Your task to perform on an android device: see tabs open on other devices in the chrome app Image 0: 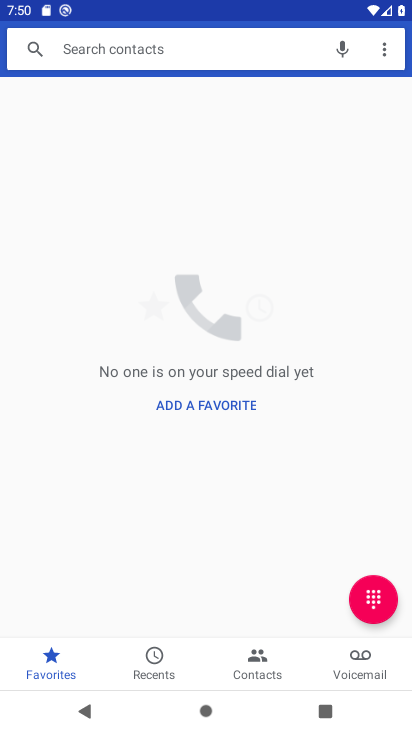
Step 0: press home button
Your task to perform on an android device: see tabs open on other devices in the chrome app Image 1: 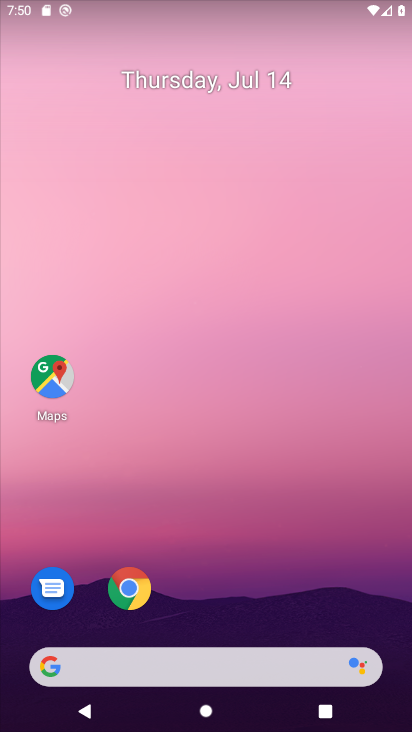
Step 1: drag from (353, 588) to (394, 139)
Your task to perform on an android device: see tabs open on other devices in the chrome app Image 2: 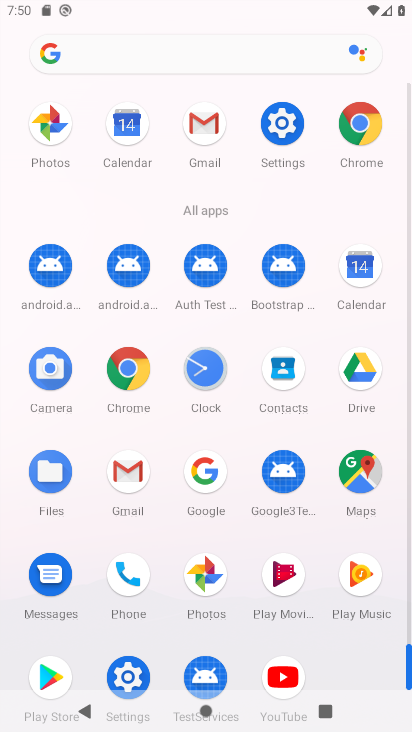
Step 2: click (133, 371)
Your task to perform on an android device: see tabs open on other devices in the chrome app Image 3: 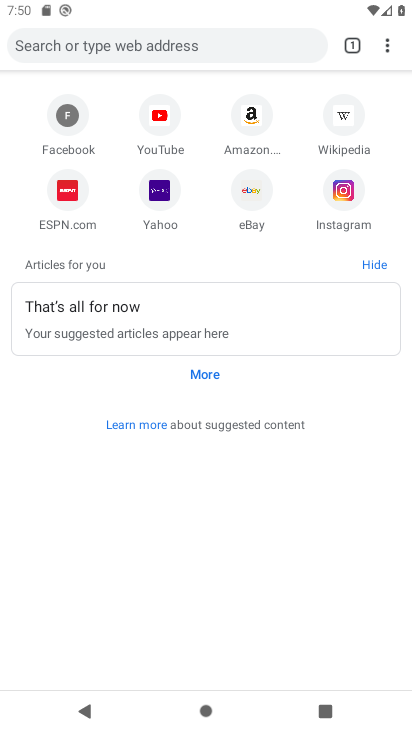
Step 3: click (387, 45)
Your task to perform on an android device: see tabs open on other devices in the chrome app Image 4: 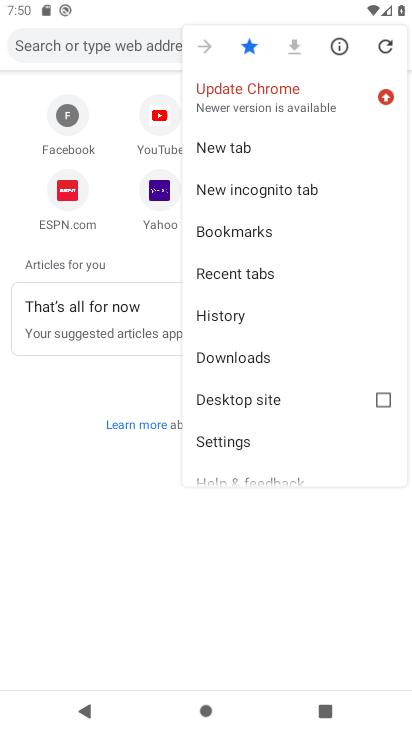
Step 4: click (266, 275)
Your task to perform on an android device: see tabs open on other devices in the chrome app Image 5: 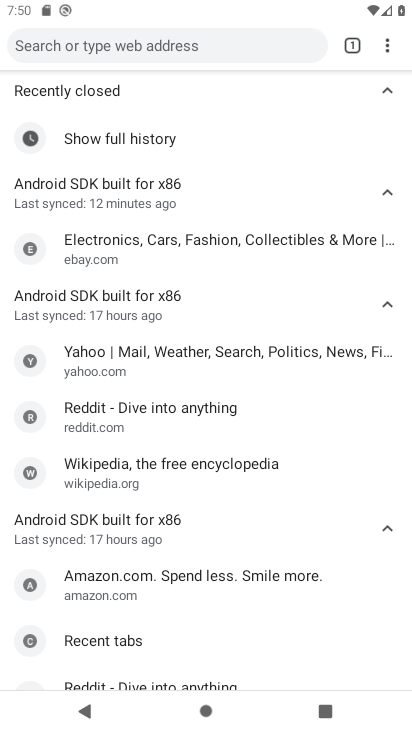
Step 5: click (350, 47)
Your task to perform on an android device: see tabs open on other devices in the chrome app Image 6: 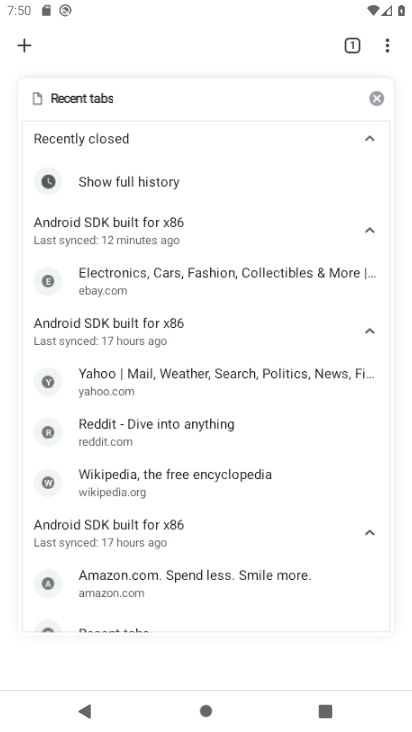
Step 6: task complete